Your task to perform on an android device: open app "Microsoft Outlook" (install if not already installed) Image 0: 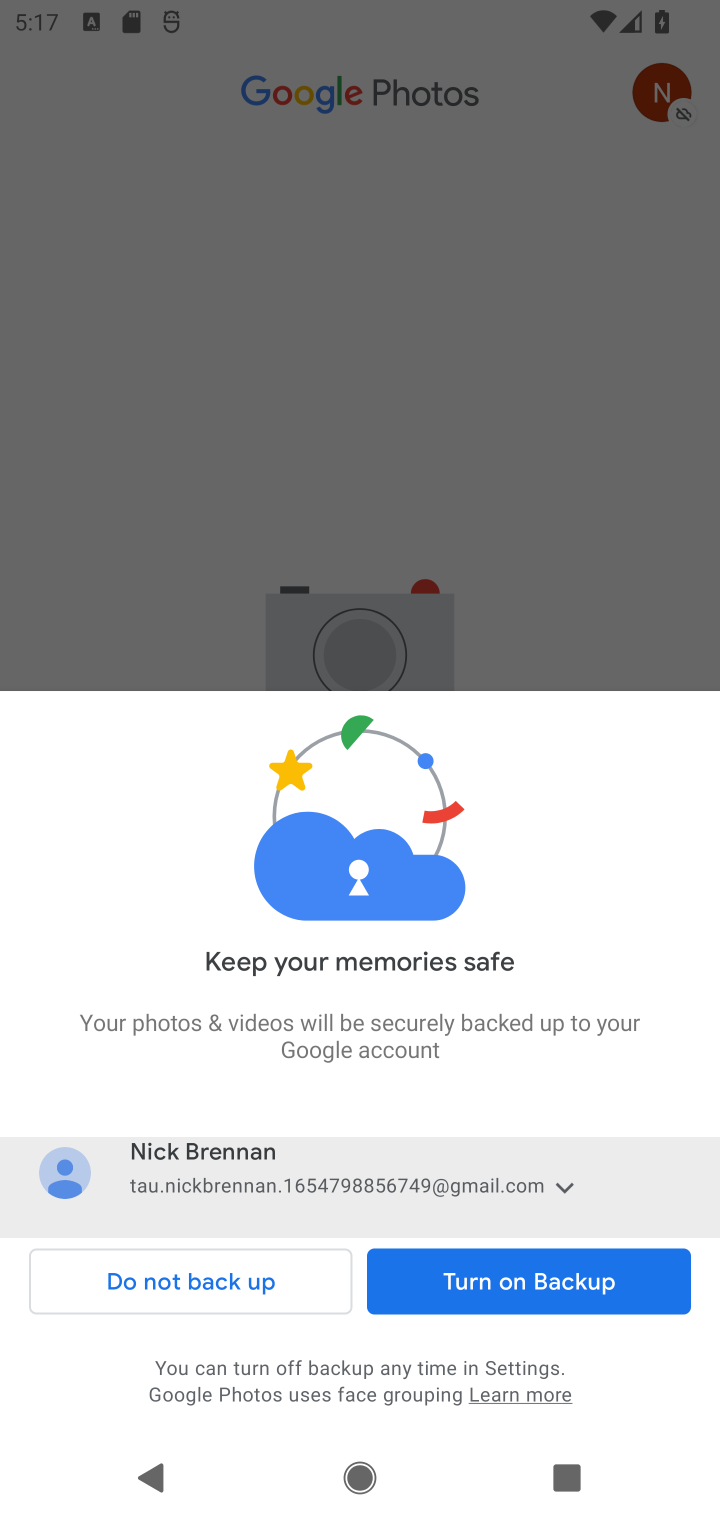
Step 0: press home button
Your task to perform on an android device: open app "Microsoft Outlook" (install if not already installed) Image 1: 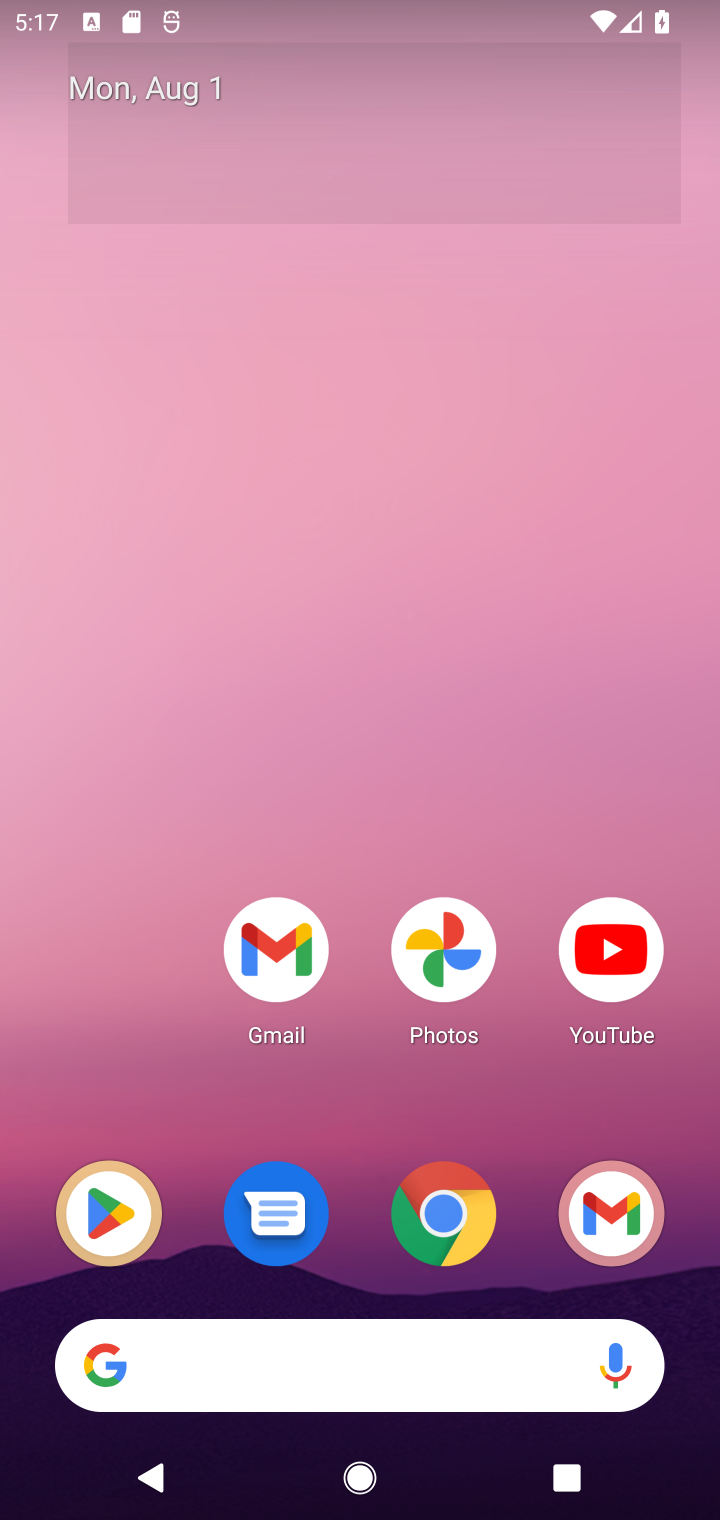
Step 1: drag from (538, 1091) to (513, 43)
Your task to perform on an android device: open app "Microsoft Outlook" (install if not already installed) Image 2: 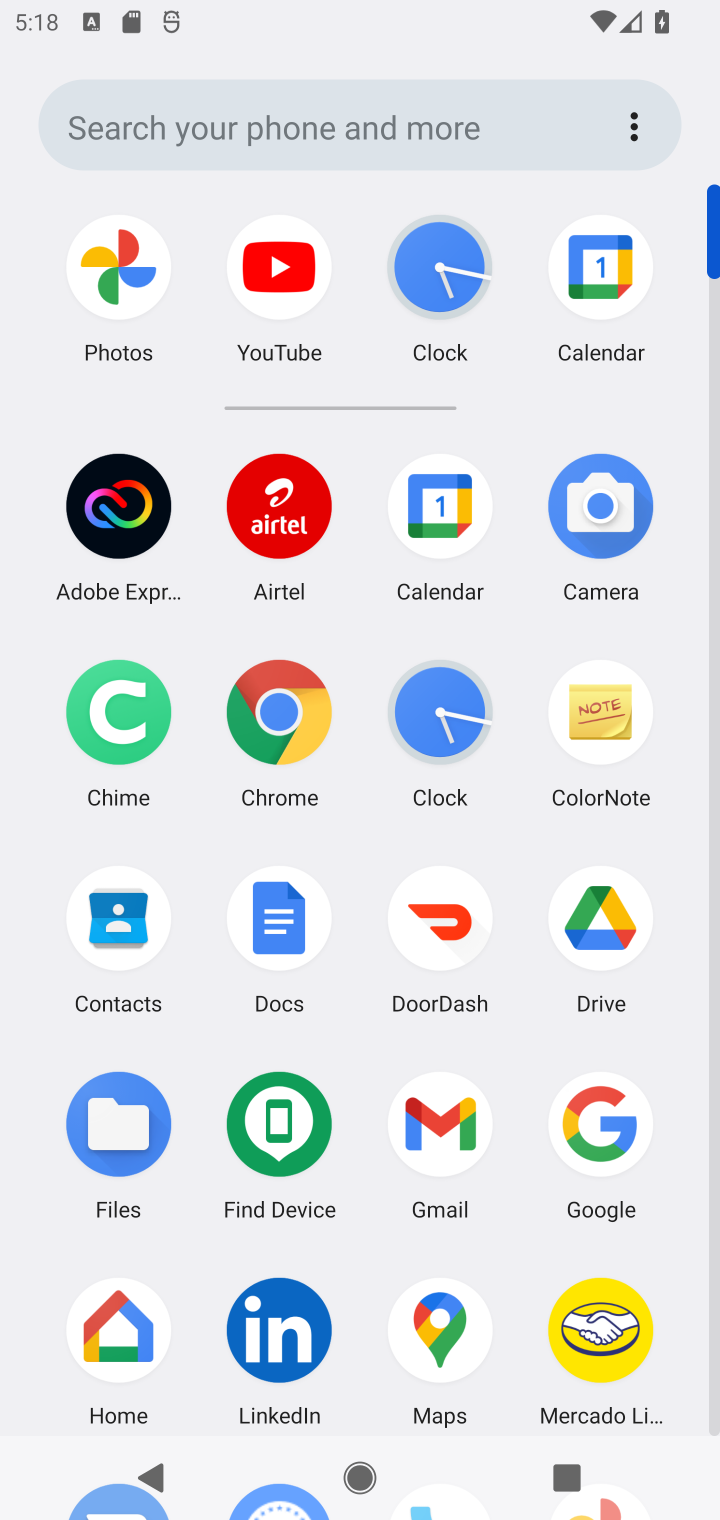
Step 2: drag from (530, 1282) to (527, 768)
Your task to perform on an android device: open app "Microsoft Outlook" (install if not already installed) Image 3: 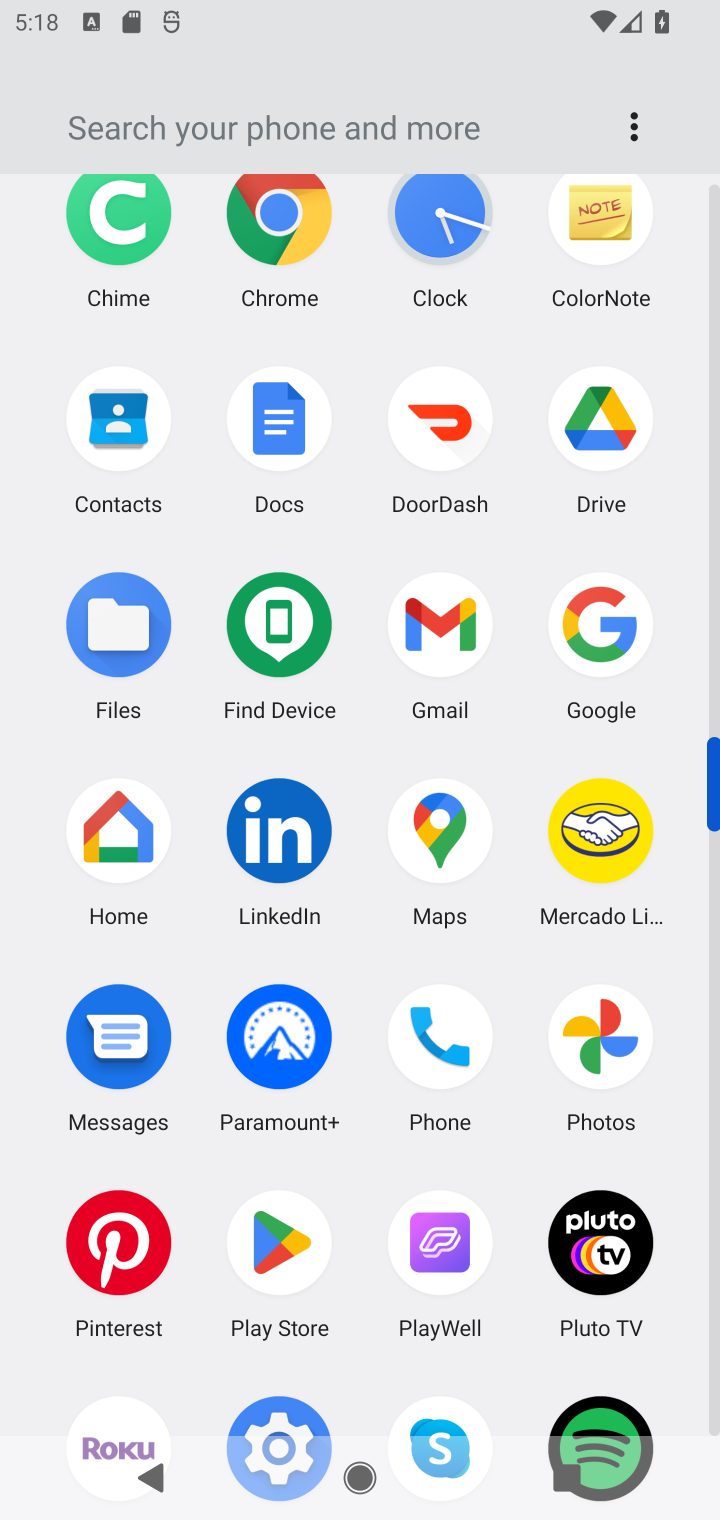
Step 3: click (291, 1243)
Your task to perform on an android device: open app "Microsoft Outlook" (install if not already installed) Image 4: 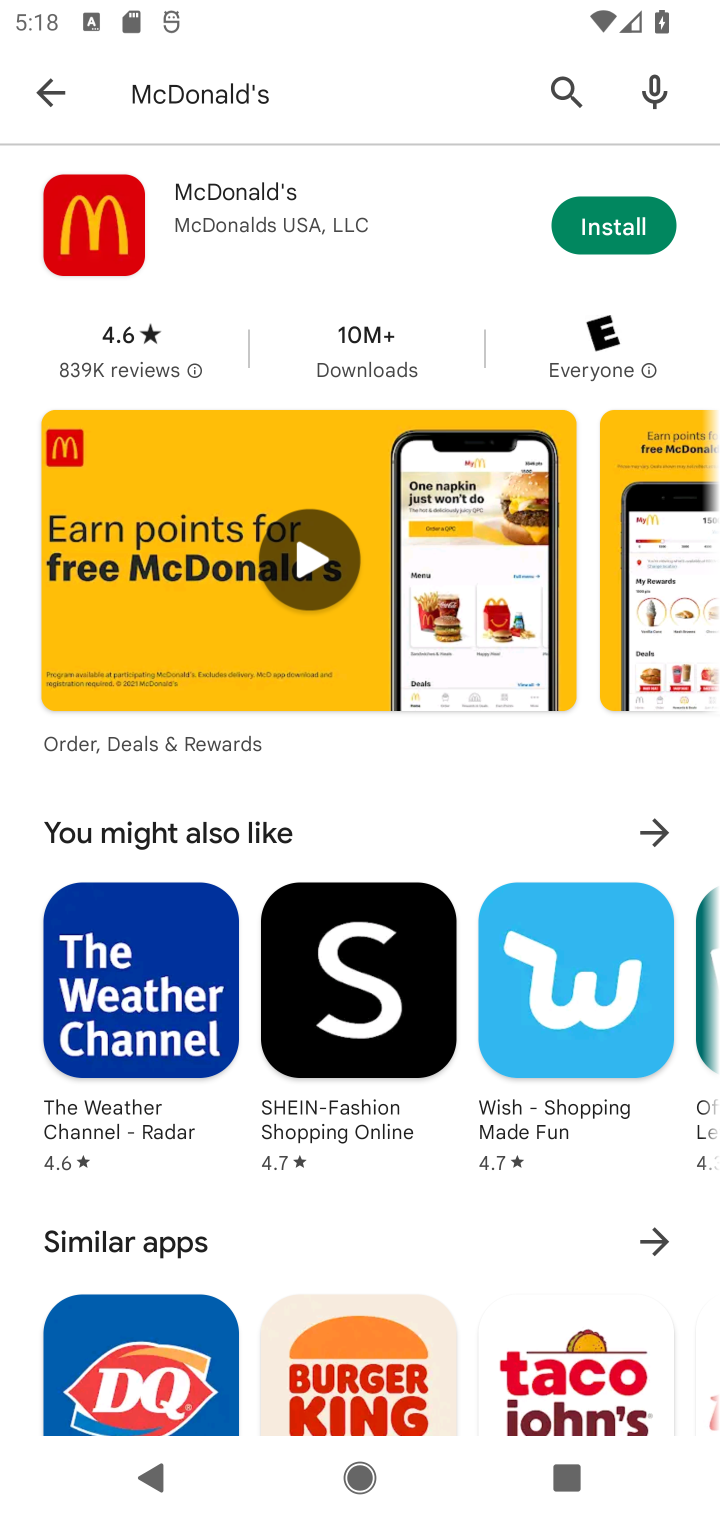
Step 4: click (435, 106)
Your task to perform on an android device: open app "Microsoft Outlook" (install if not already installed) Image 5: 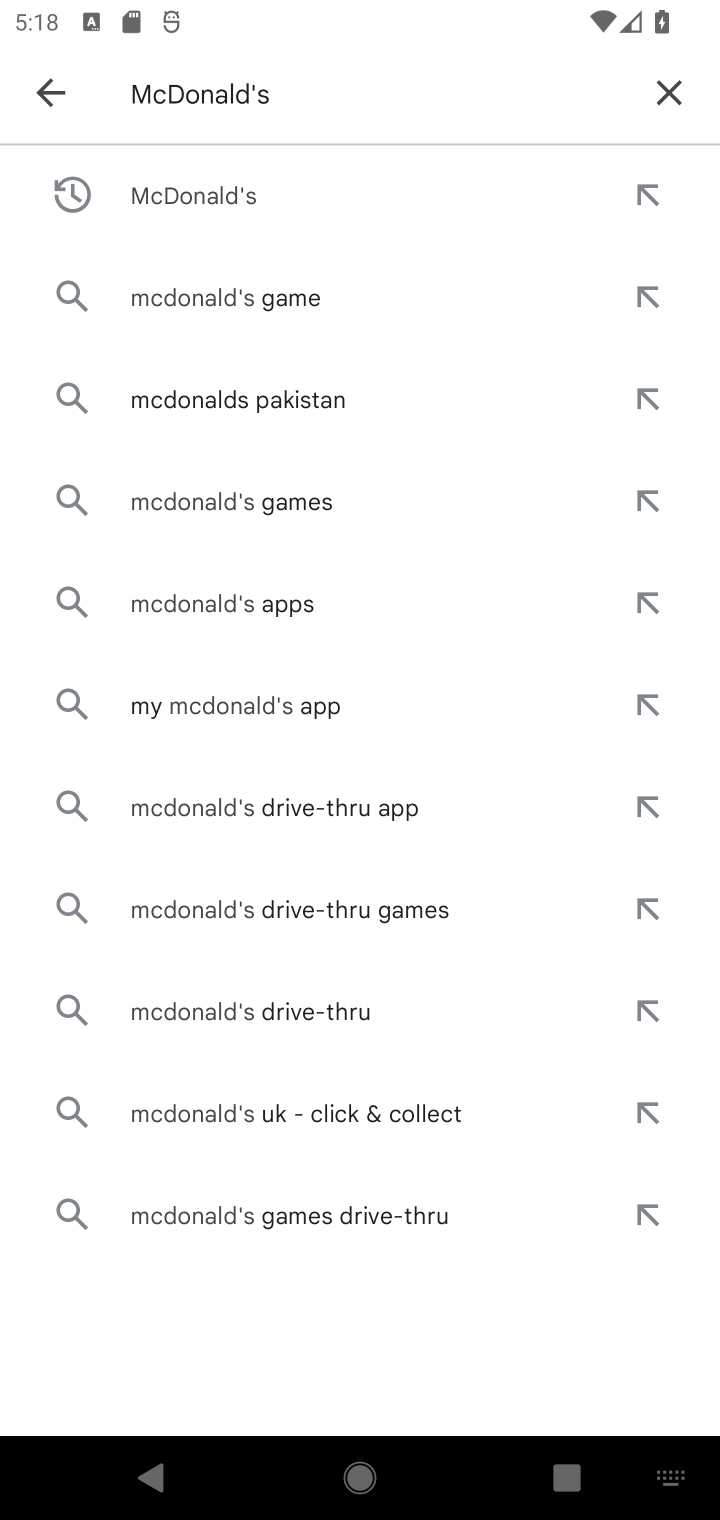
Step 5: click (674, 76)
Your task to perform on an android device: open app "Microsoft Outlook" (install if not already installed) Image 6: 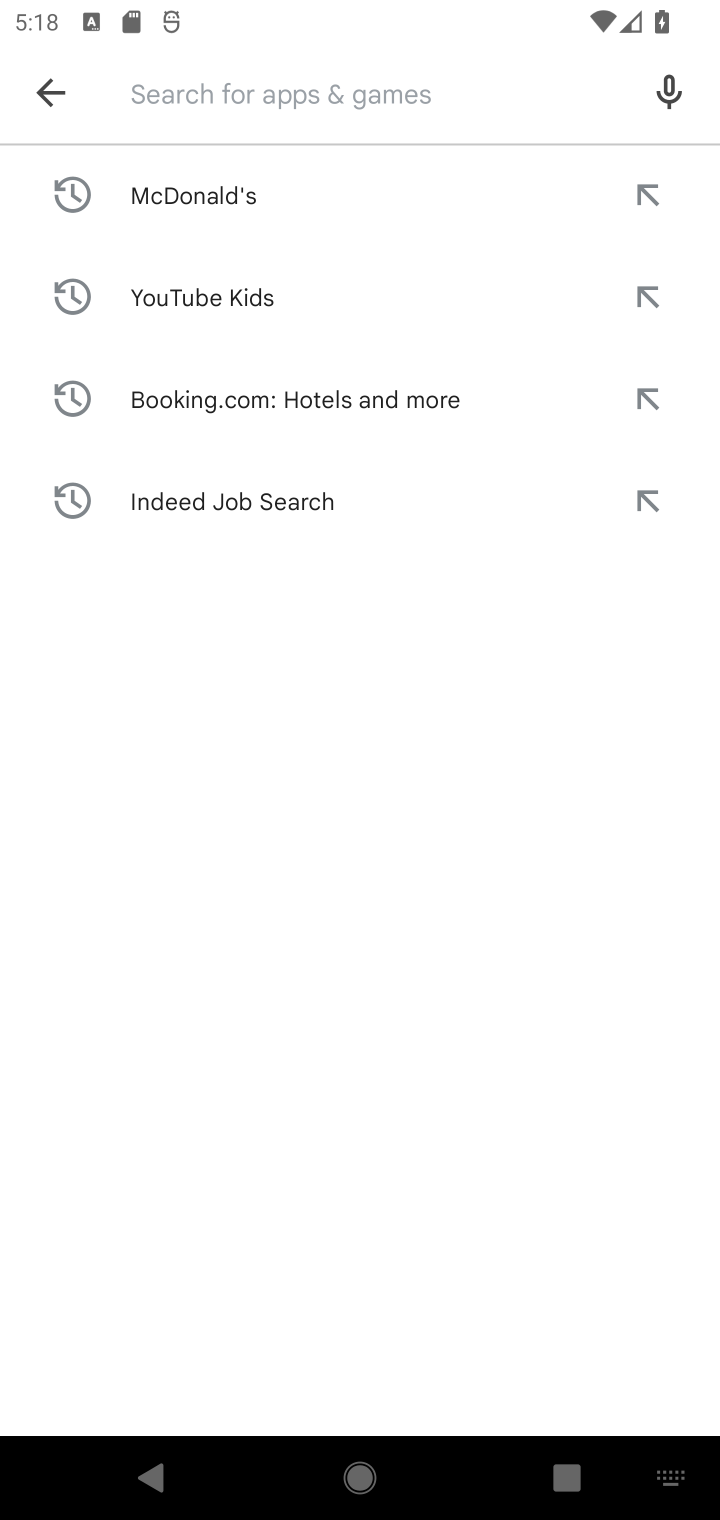
Step 6: type "Microsoft Outlook"
Your task to perform on an android device: open app "Microsoft Outlook" (install if not already installed) Image 7: 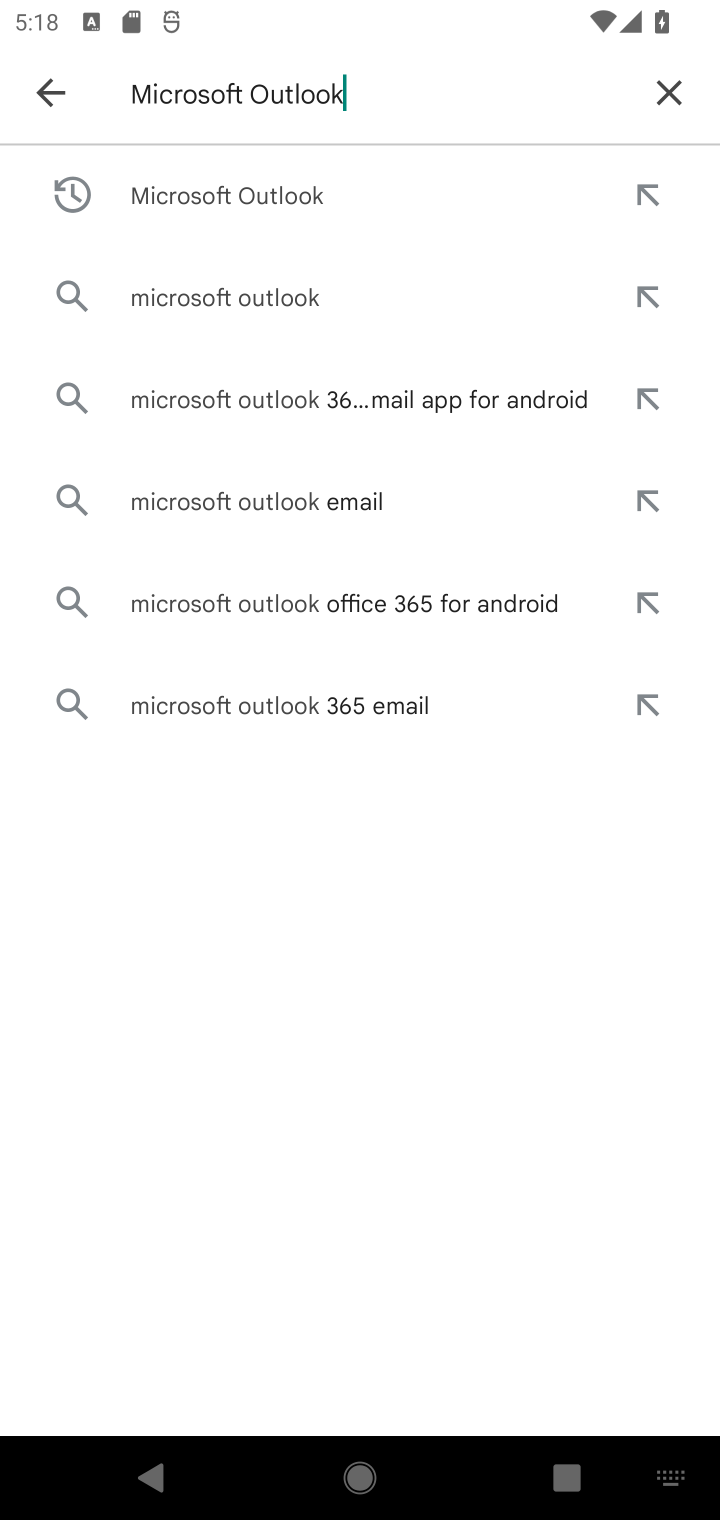
Step 7: press enter
Your task to perform on an android device: open app "Microsoft Outlook" (install if not already installed) Image 8: 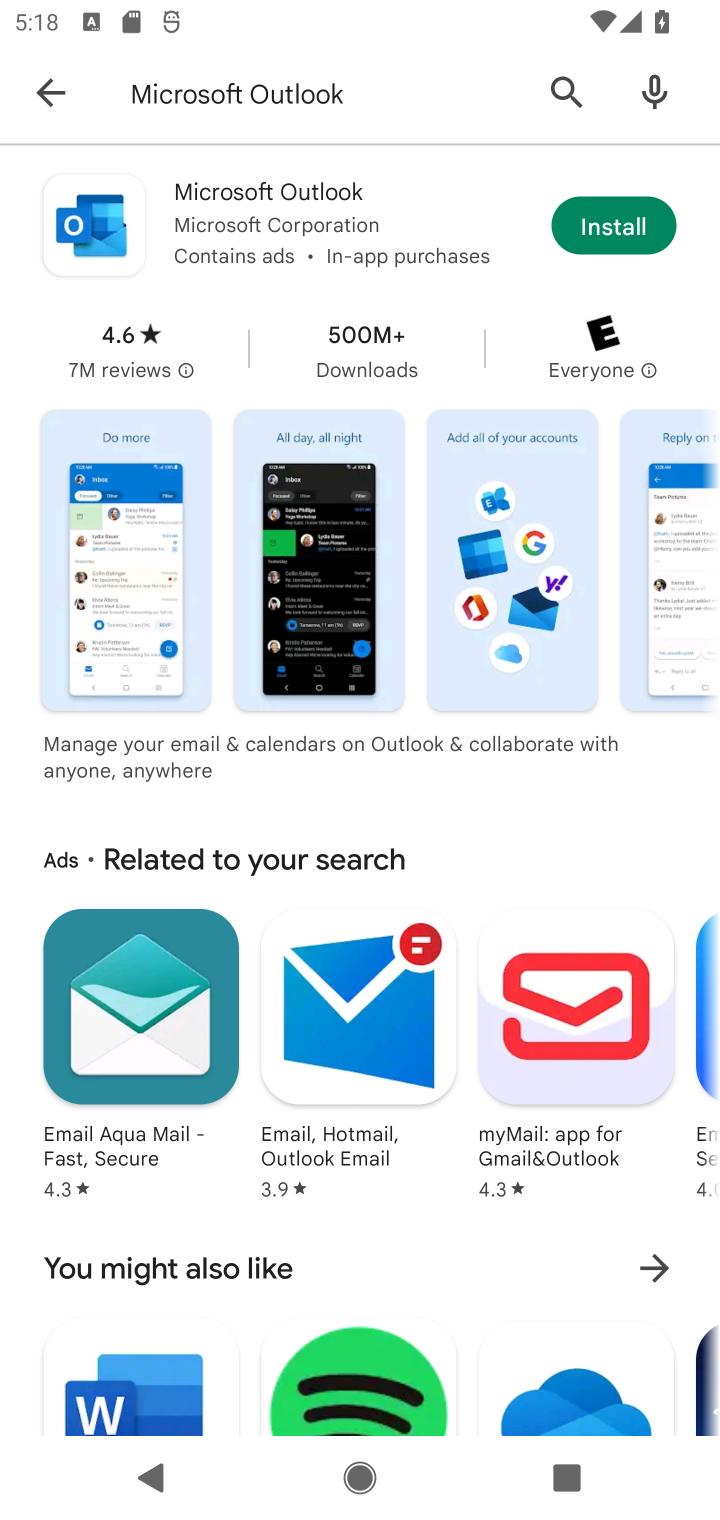
Step 8: click (632, 199)
Your task to perform on an android device: open app "Microsoft Outlook" (install if not already installed) Image 9: 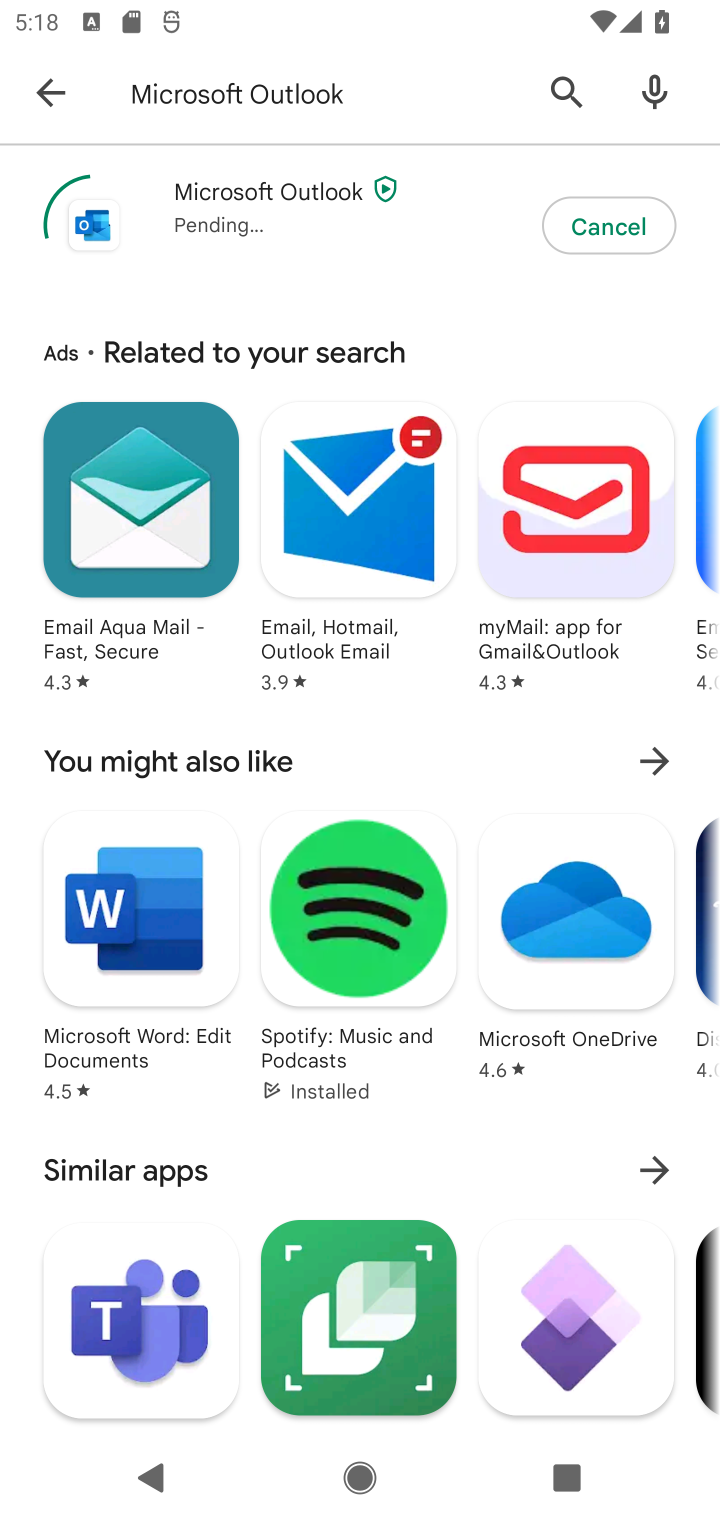
Step 9: click (353, 211)
Your task to perform on an android device: open app "Microsoft Outlook" (install if not already installed) Image 10: 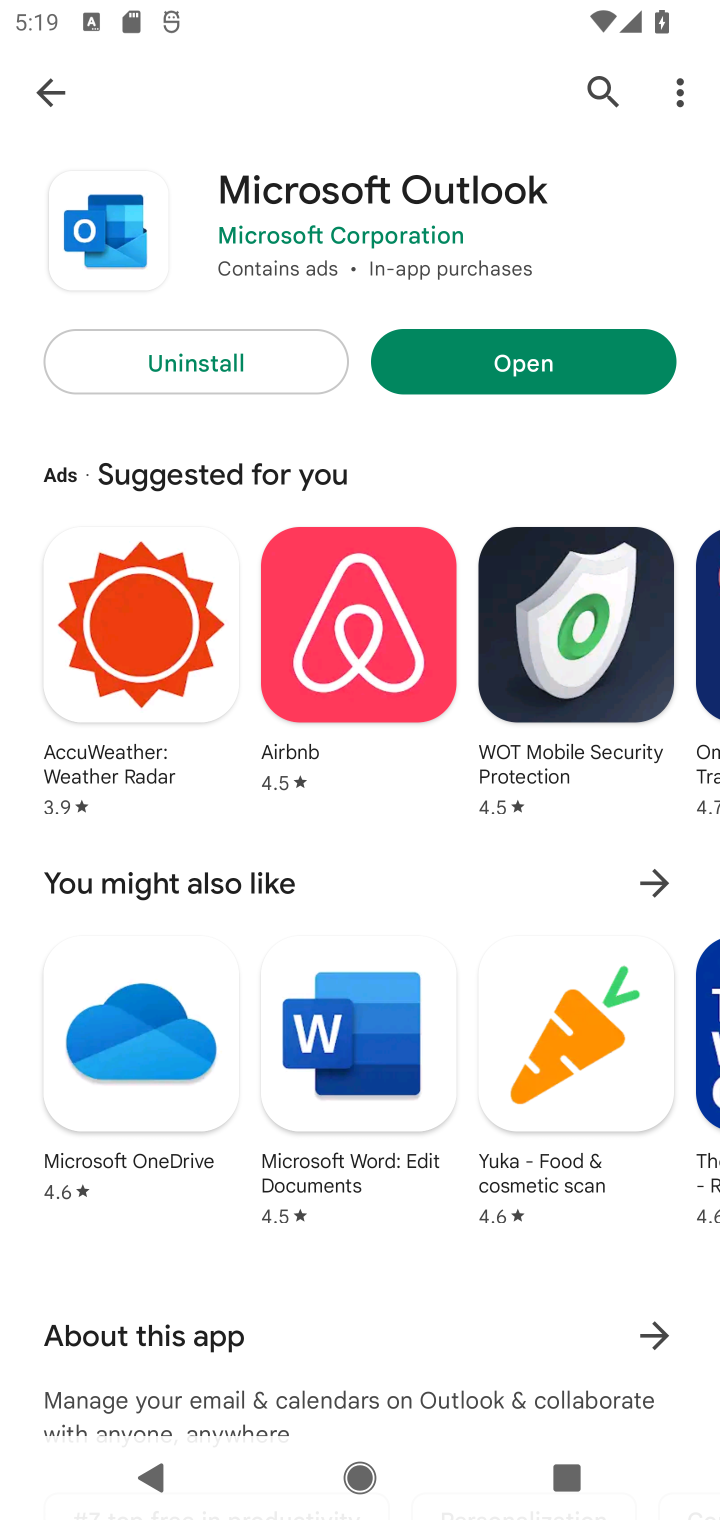
Step 10: click (562, 345)
Your task to perform on an android device: open app "Microsoft Outlook" (install if not already installed) Image 11: 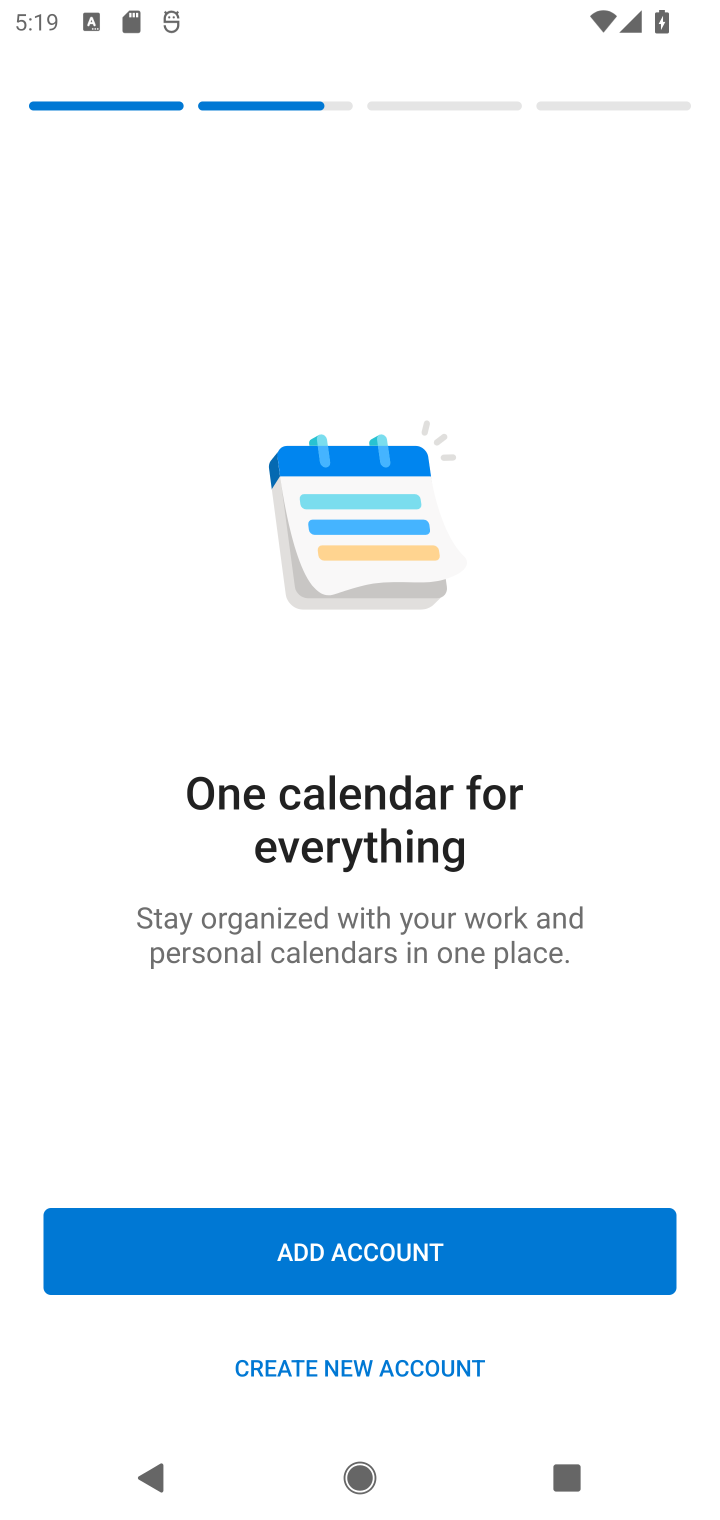
Step 11: task complete